Your task to perform on an android device: check storage Image 0: 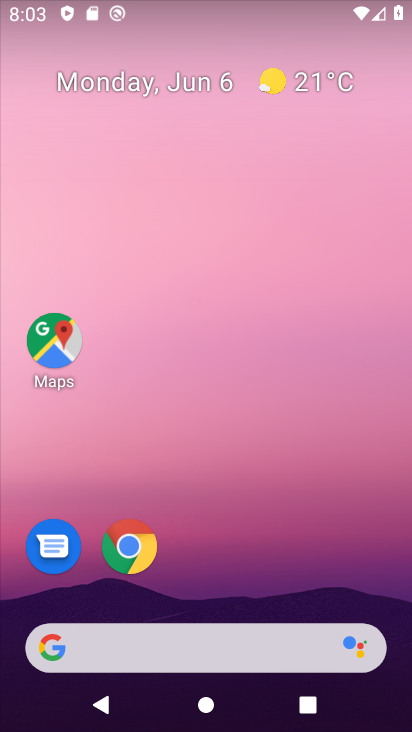
Step 0: drag from (313, 570) to (341, 10)
Your task to perform on an android device: check storage Image 1: 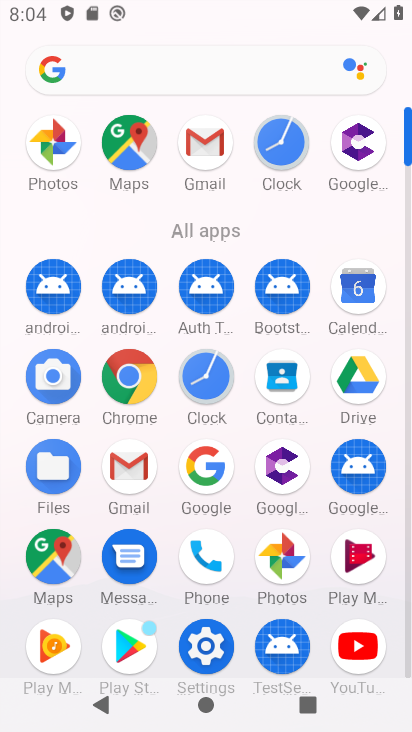
Step 1: click (223, 672)
Your task to perform on an android device: check storage Image 2: 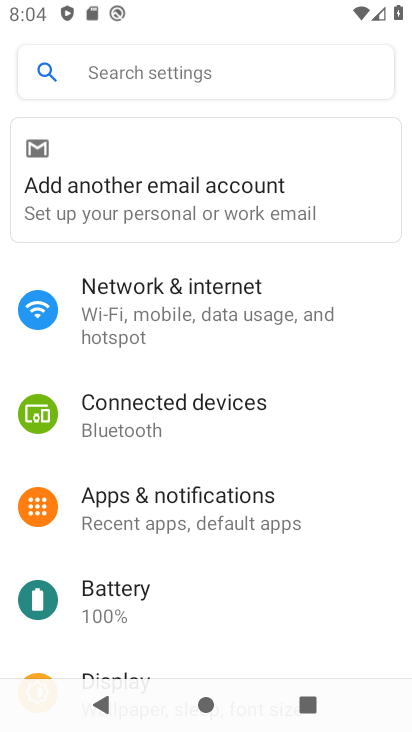
Step 2: drag from (188, 557) to (216, 343)
Your task to perform on an android device: check storage Image 3: 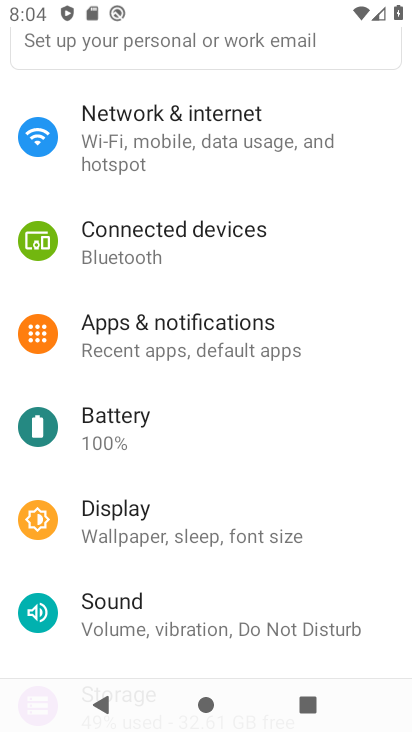
Step 3: drag from (213, 648) to (231, 384)
Your task to perform on an android device: check storage Image 4: 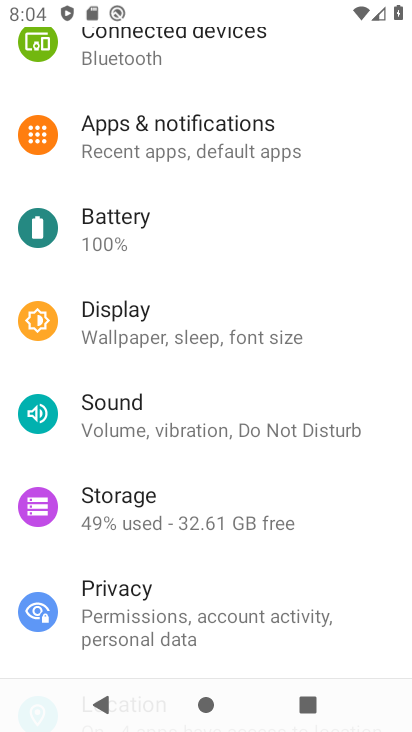
Step 4: click (207, 517)
Your task to perform on an android device: check storage Image 5: 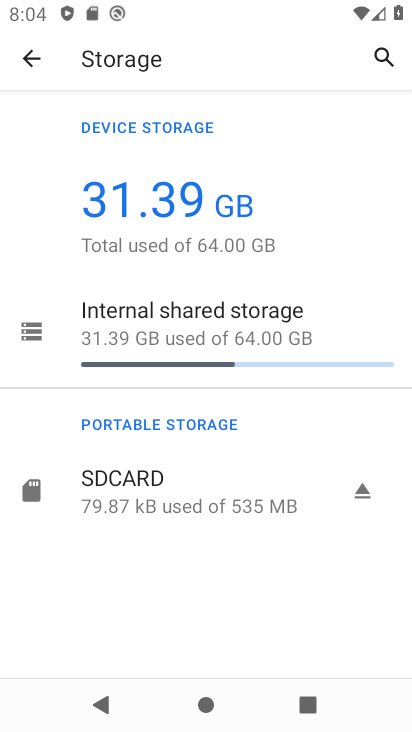
Step 5: task complete